Your task to perform on an android device: move a message to another label in the gmail app Image 0: 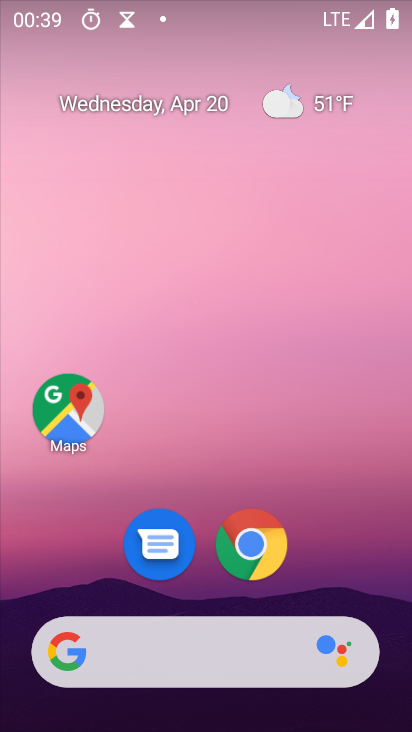
Step 0: drag from (324, 586) to (374, 56)
Your task to perform on an android device: move a message to another label in the gmail app Image 1: 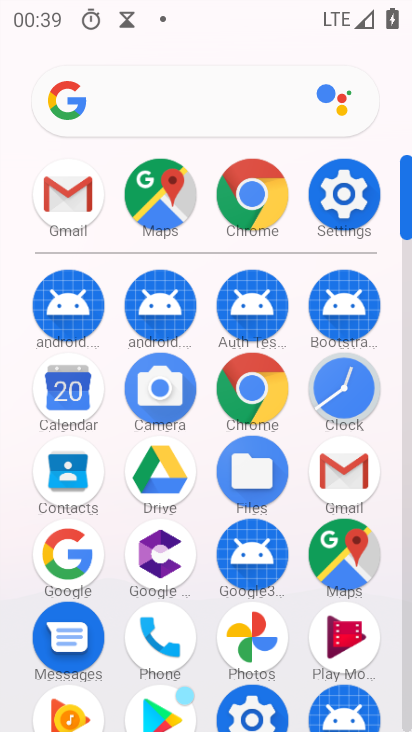
Step 1: click (329, 475)
Your task to perform on an android device: move a message to another label in the gmail app Image 2: 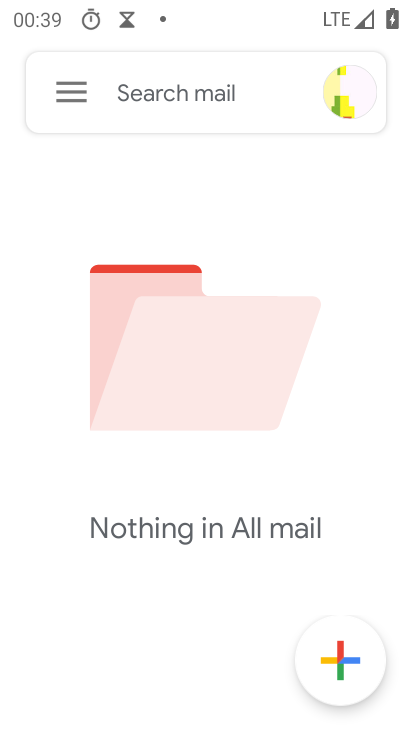
Step 2: click (70, 97)
Your task to perform on an android device: move a message to another label in the gmail app Image 3: 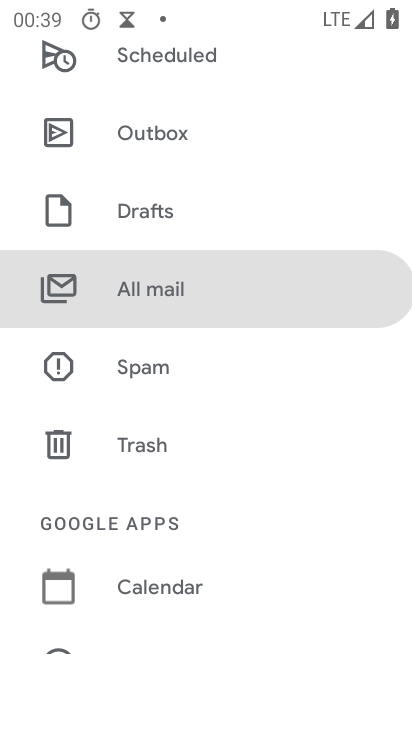
Step 3: click (150, 286)
Your task to perform on an android device: move a message to another label in the gmail app Image 4: 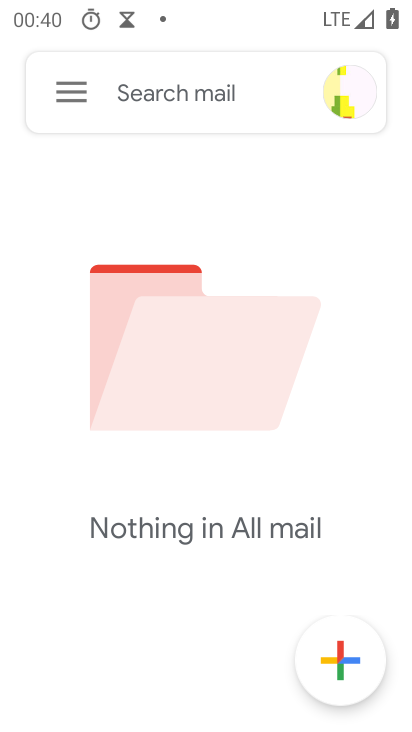
Step 4: task complete